Your task to perform on an android device: turn off notifications settings in the gmail app Image 0: 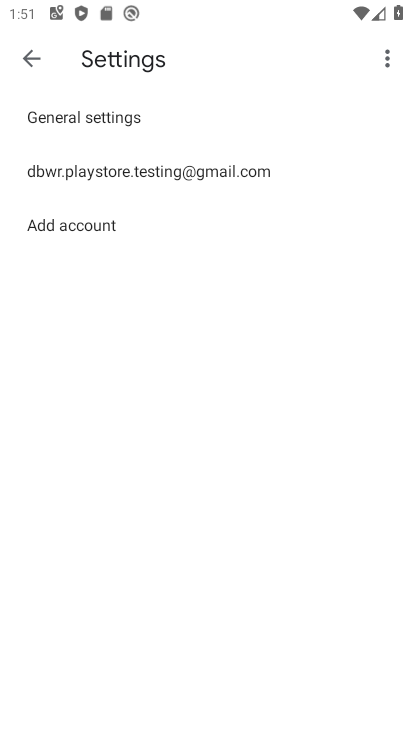
Step 0: press home button
Your task to perform on an android device: turn off notifications settings in the gmail app Image 1: 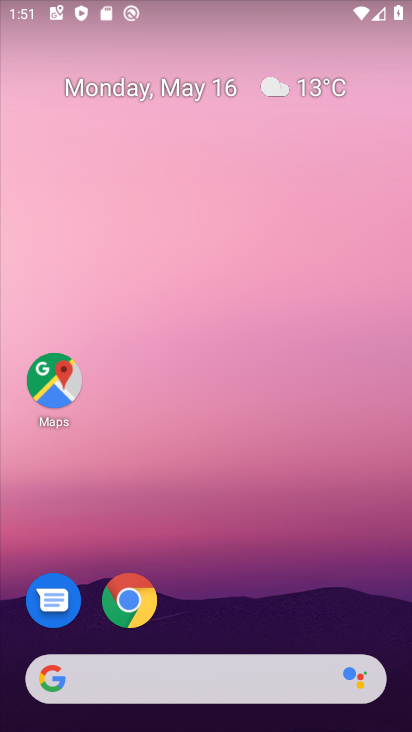
Step 1: drag from (302, 556) to (240, 36)
Your task to perform on an android device: turn off notifications settings in the gmail app Image 2: 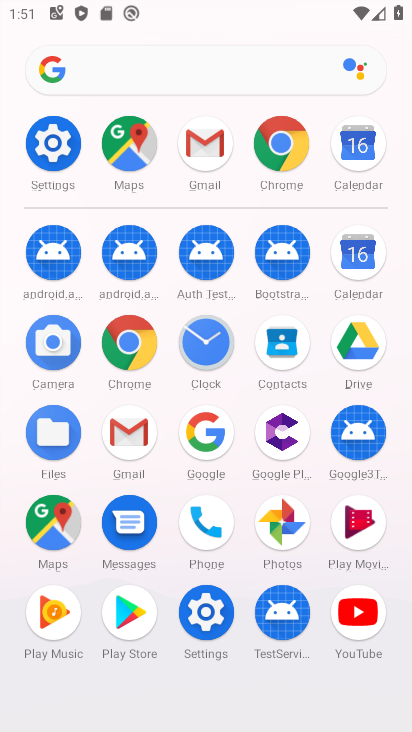
Step 2: click (125, 426)
Your task to perform on an android device: turn off notifications settings in the gmail app Image 3: 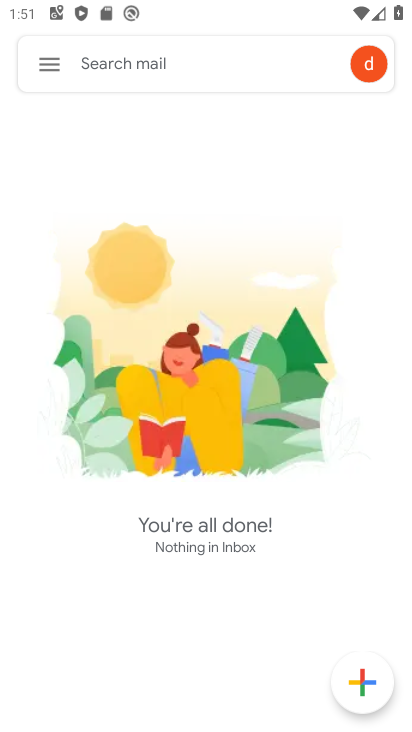
Step 3: click (47, 77)
Your task to perform on an android device: turn off notifications settings in the gmail app Image 4: 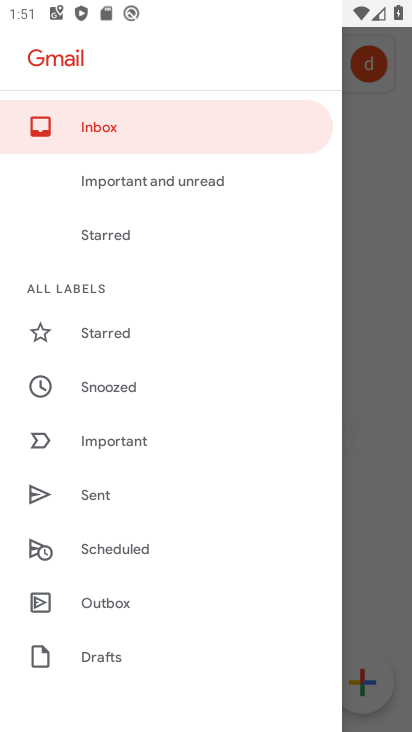
Step 4: drag from (190, 628) to (142, 354)
Your task to perform on an android device: turn off notifications settings in the gmail app Image 5: 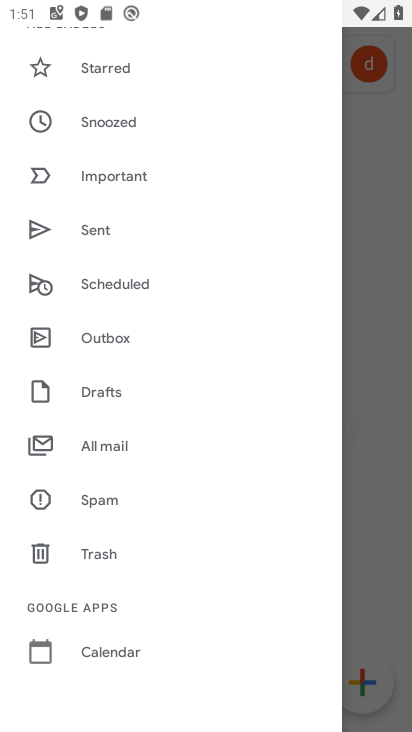
Step 5: drag from (162, 611) to (133, 421)
Your task to perform on an android device: turn off notifications settings in the gmail app Image 6: 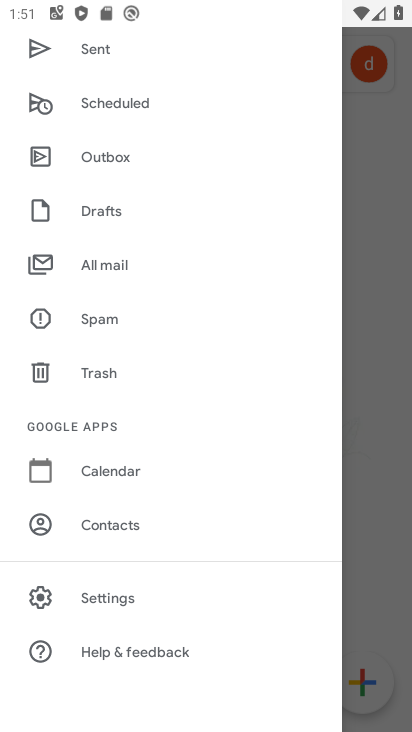
Step 6: click (92, 592)
Your task to perform on an android device: turn off notifications settings in the gmail app Image 7: 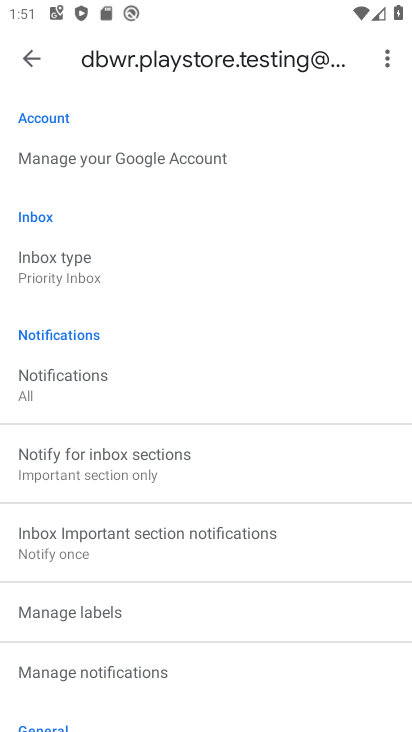
Step 7: click (134, 375)
Your task to perform on an android device: turn off notifications settings in the gmail app Image 8: 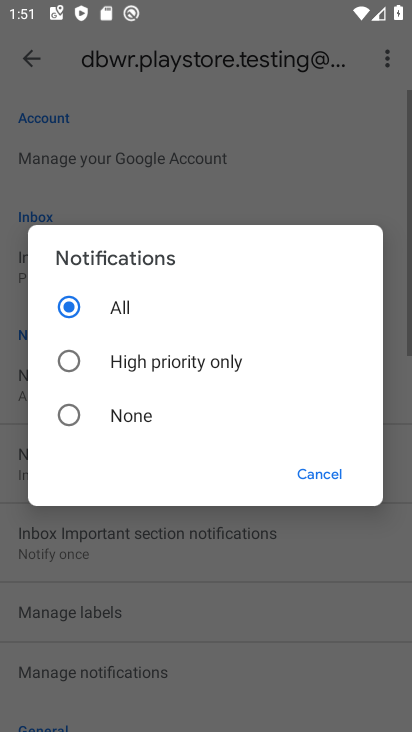
Step 8: click (142, 419)
Your task to perform on an android device: turn off notifications settings in the gmail app Image 9: 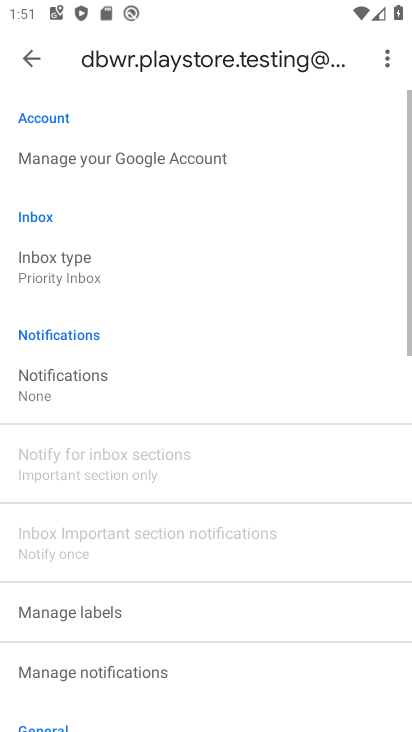
Step 9: click (145, 677)
Your task to perform on an android device: turn off notifications settings in the gmail app Image 10: 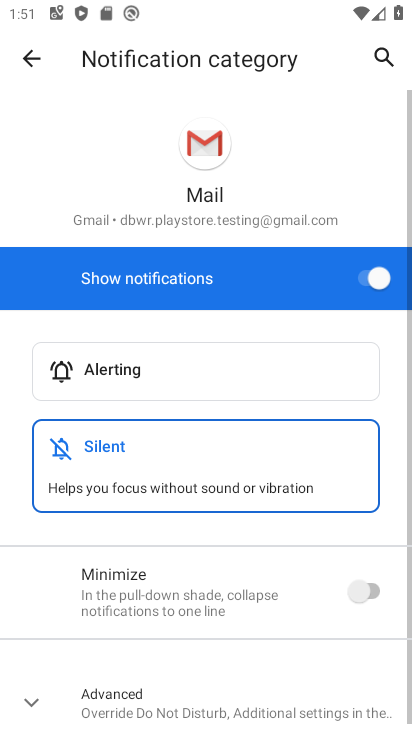
Step 10: click (378, 289)
Your task to perform on an android device: turn off notifications settings in the gmail app Image 11: 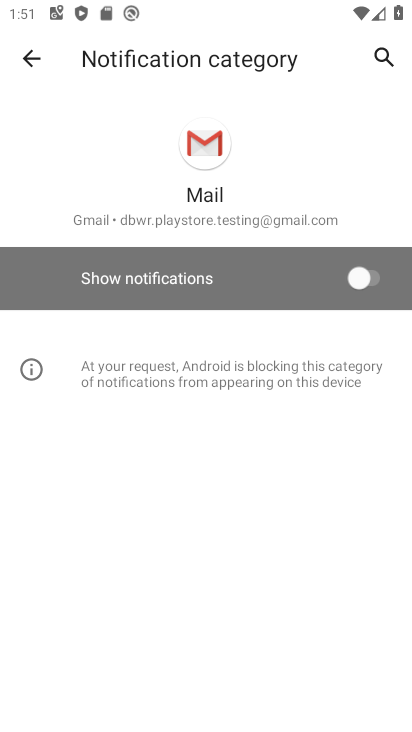
Step 11: task complete